Your task to perform on an android device: Clear the cart on newegg. Image 0: 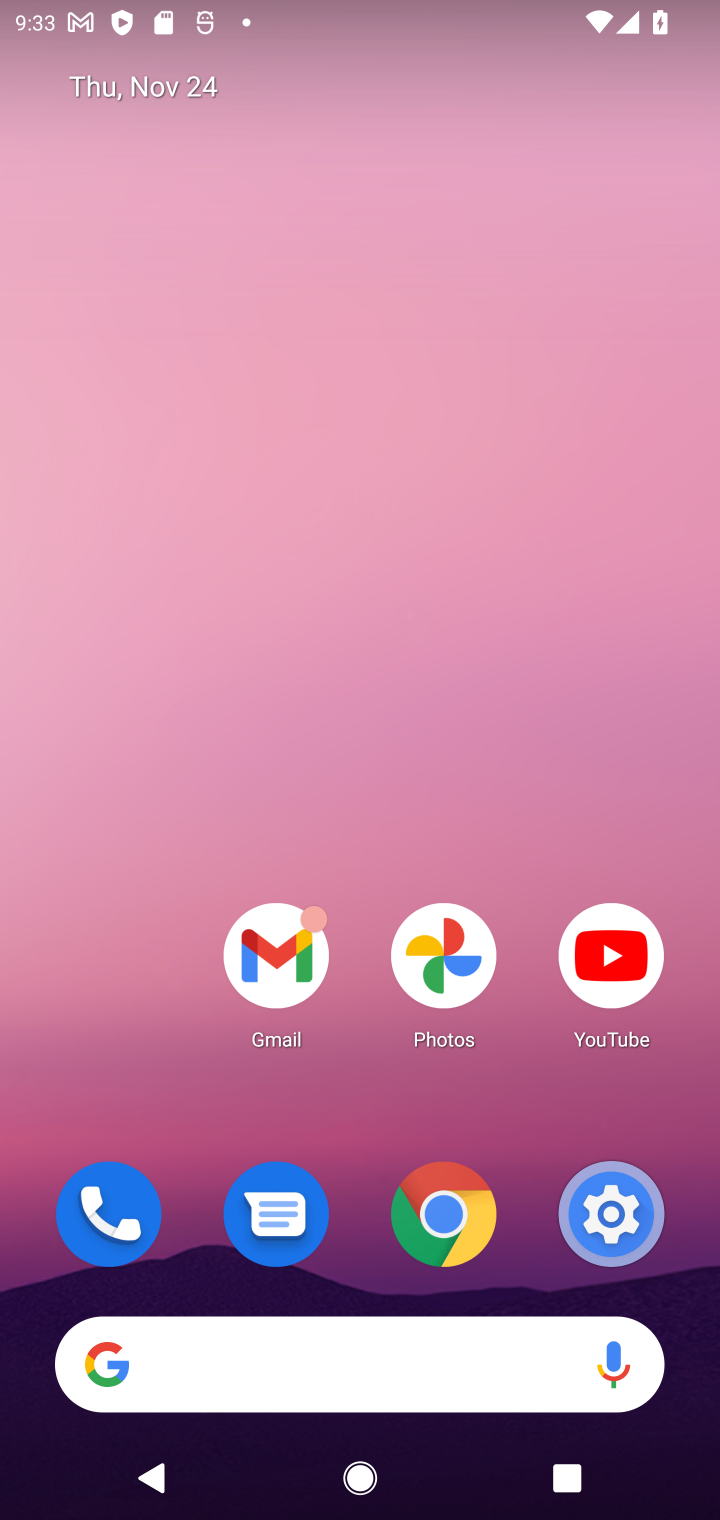
Step 0: click (367, 1413)
Your task to perform on an android device: Clear the cart on newegg. Image 1: 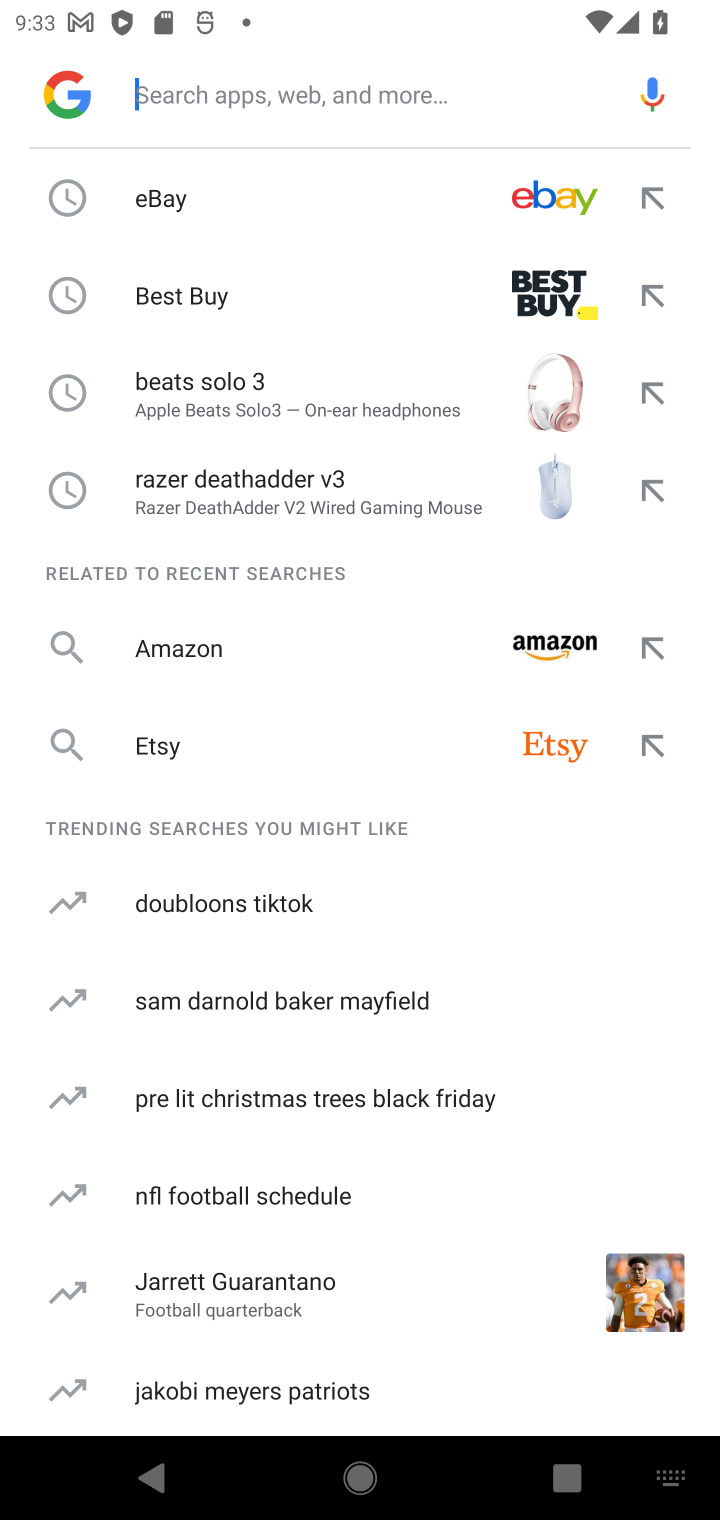
Step 1: type "newegg.com"
Your task to perform on an android device: Clear the cart on newegg. Image 2: 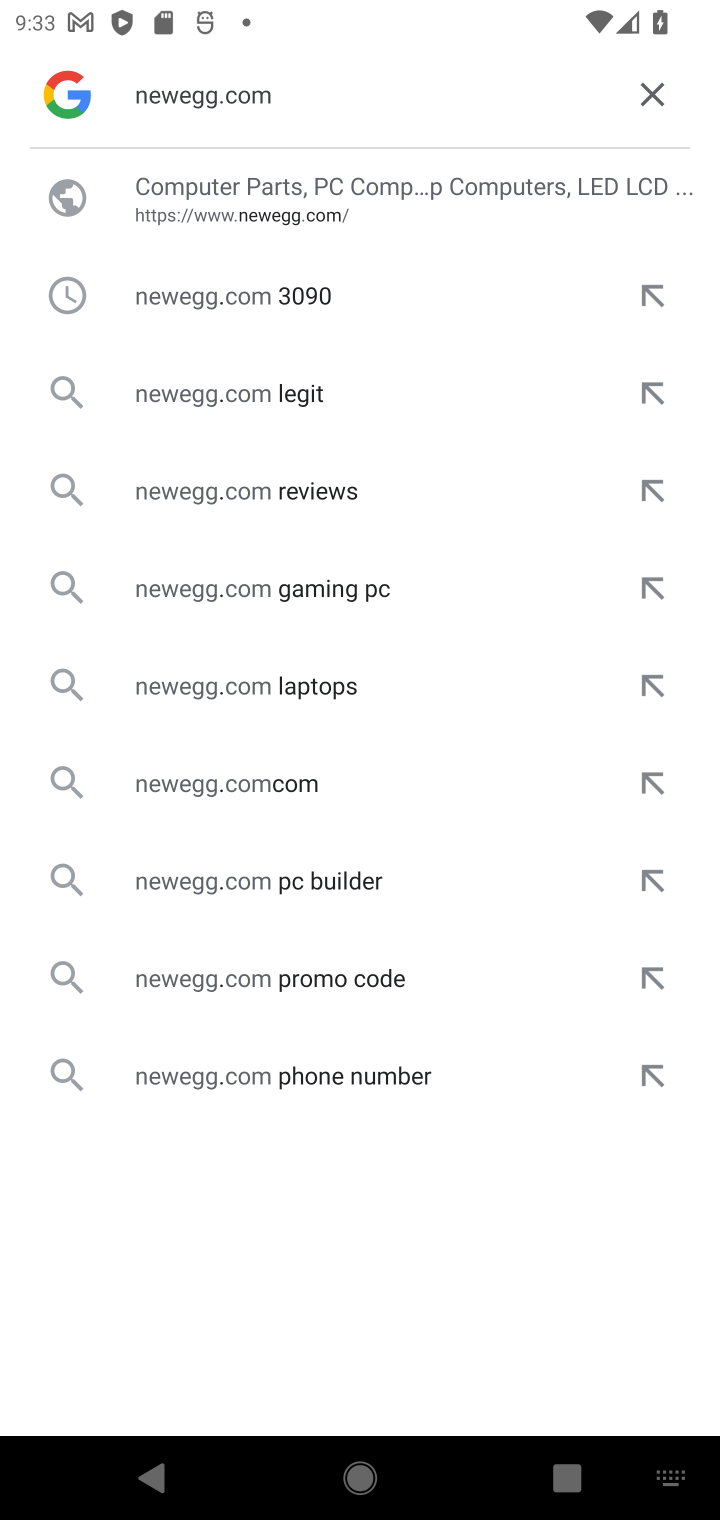
Step 2: click (191, 249)
Your task to perform on an android device: Clear the cart on newegg. Image 3: 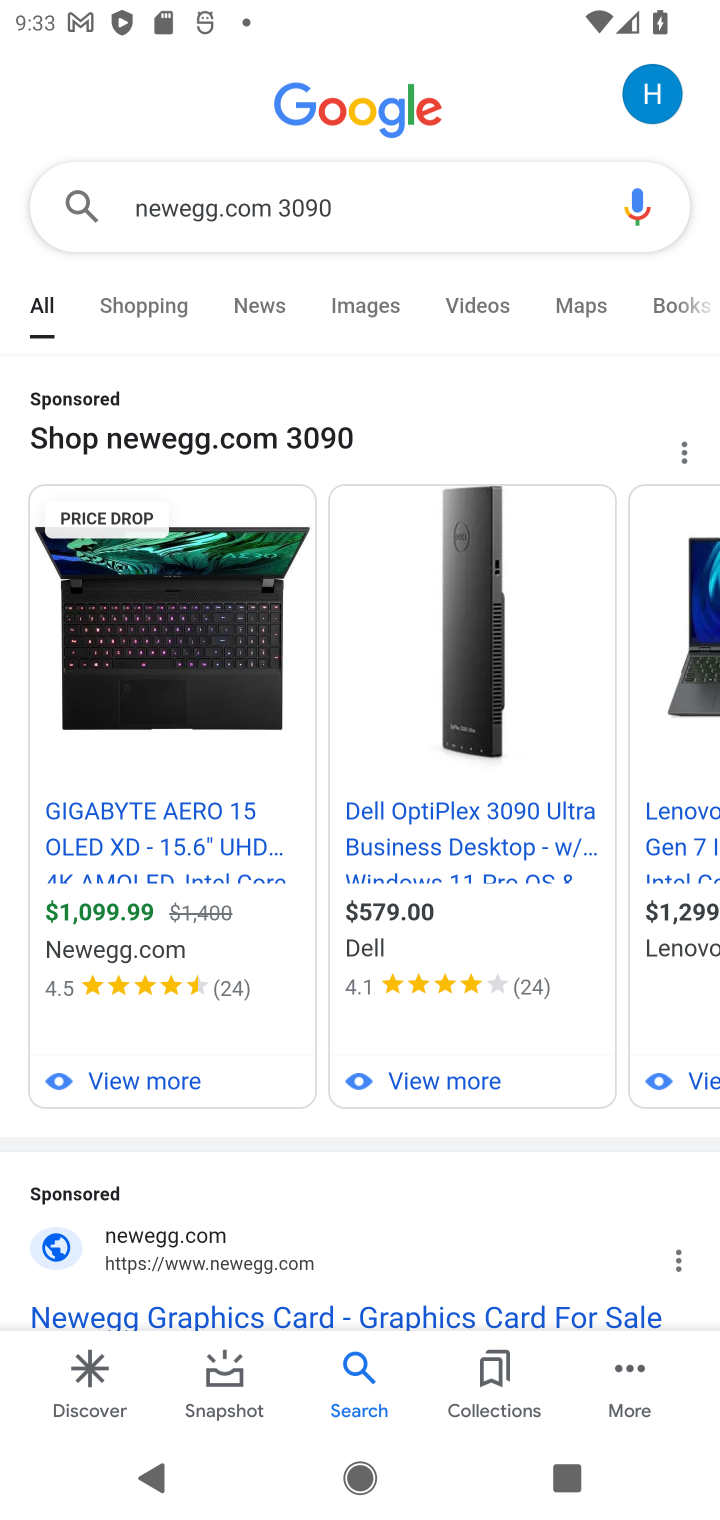
Step 3: click (192, 1323)
Your task to perform on an android device: Clear the cart on newegg. Image 4: 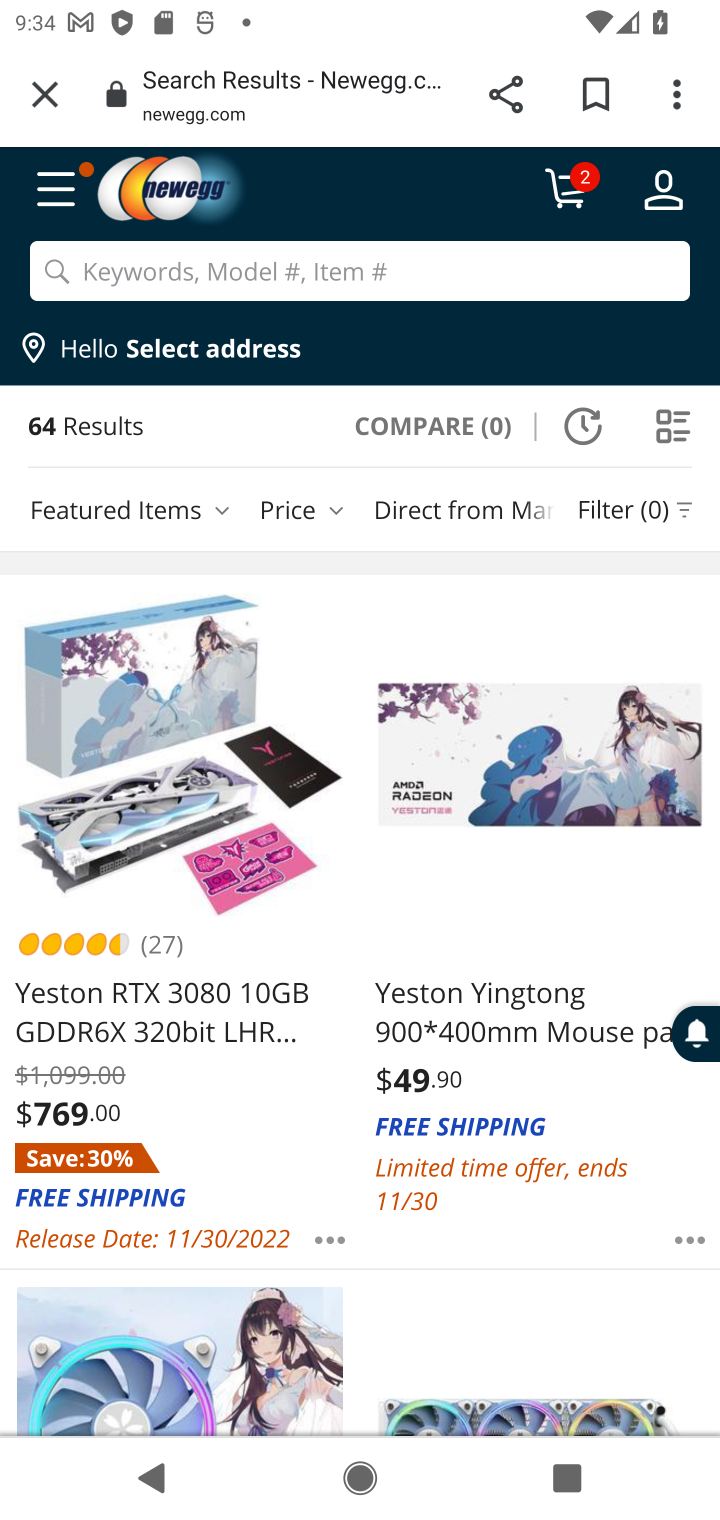
Step 4: click (579, 187)
Your task to perform on an android device: Clear the cart on newegg. Image 5: 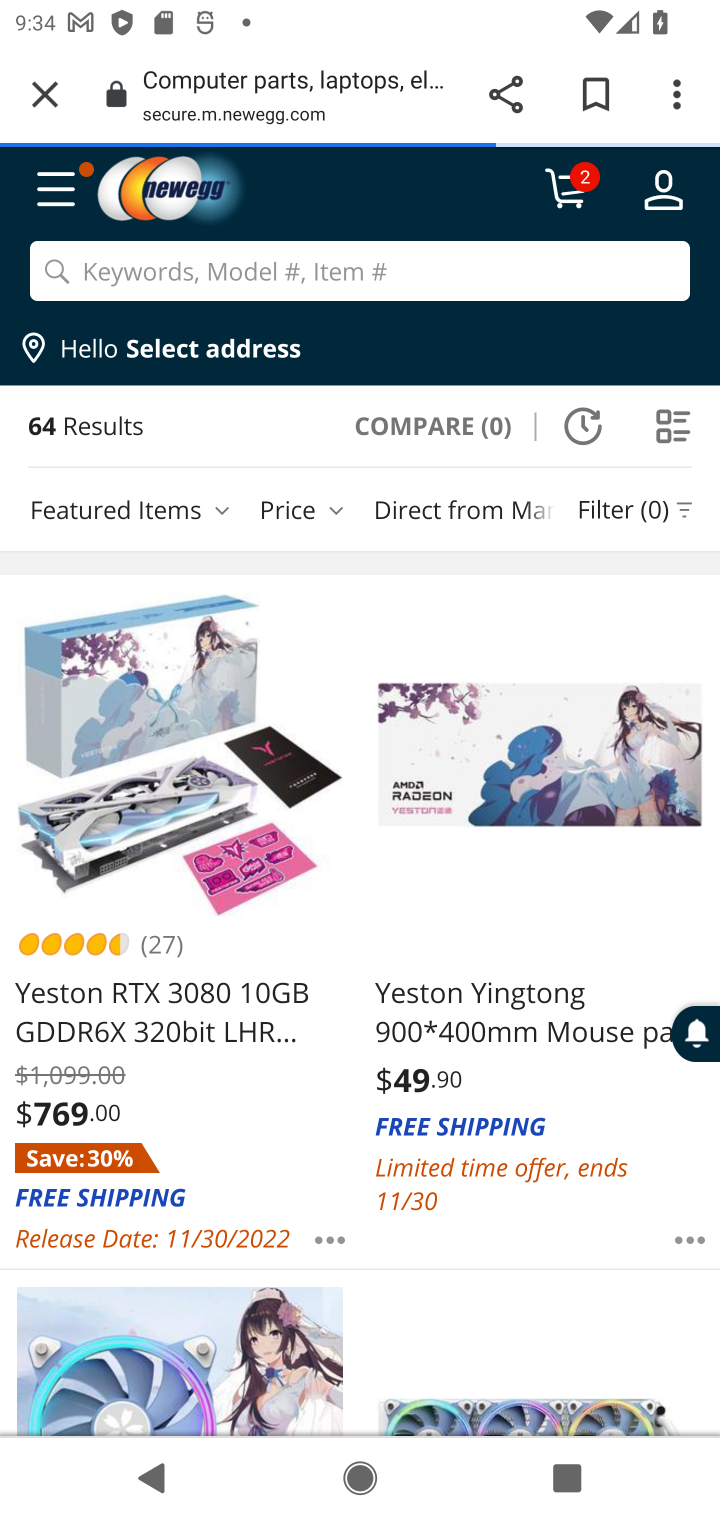
Step 5: click (564, 199)
Your task to perform on an android device: Clear the cart on newegg. Image 6: 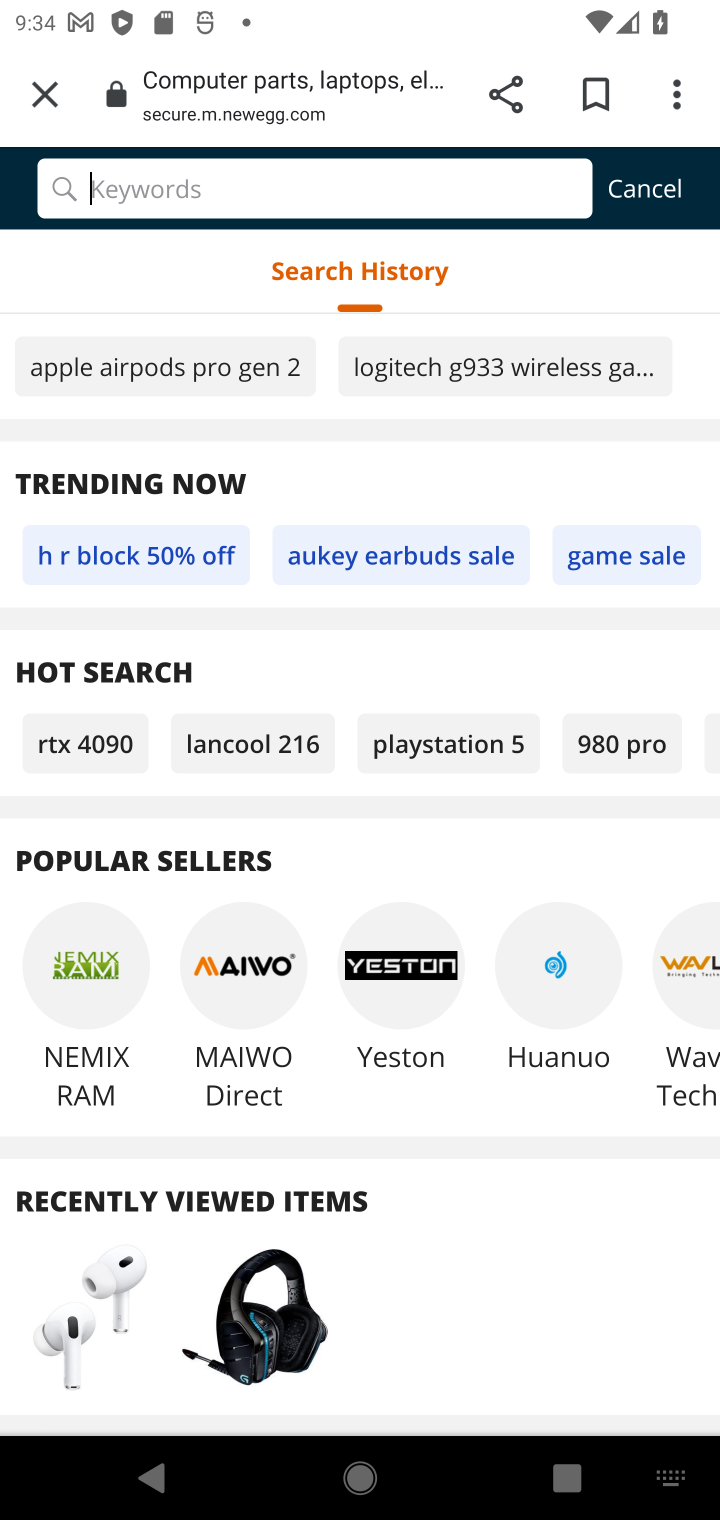
Step 6: task complete